Your task to perform on an android device: Open calendar and show me the third week of next month Image 0: 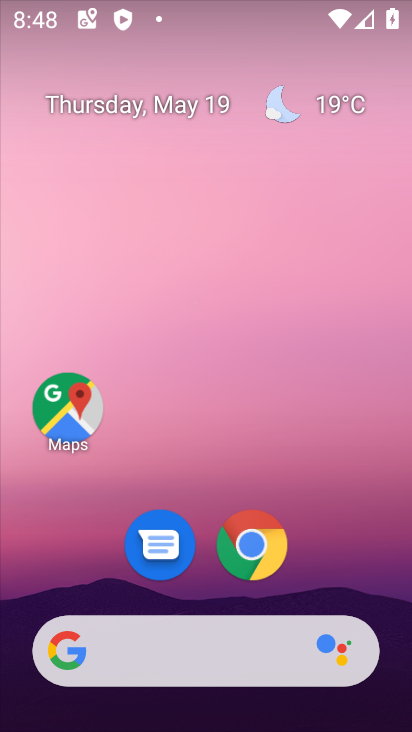
Step 0: drag from (354, 573) to (282, 240)
Your task to perform on an android device: Open calendar and show me the third week of next month Image 1: 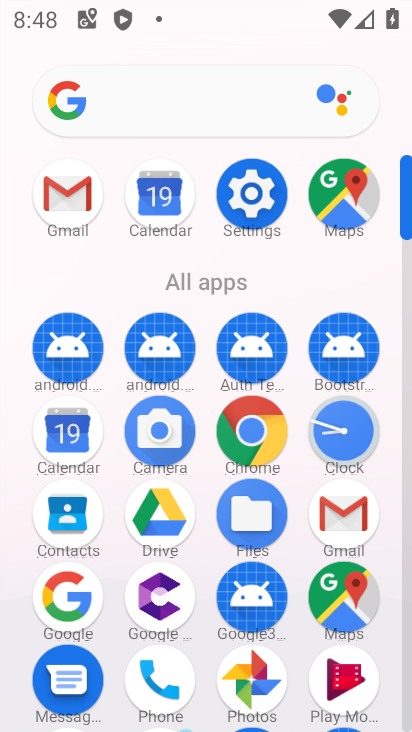
Step 1: click (58, 442)
Your task to perform on an android device: Open calendar and show me the third week of next month Image 2: 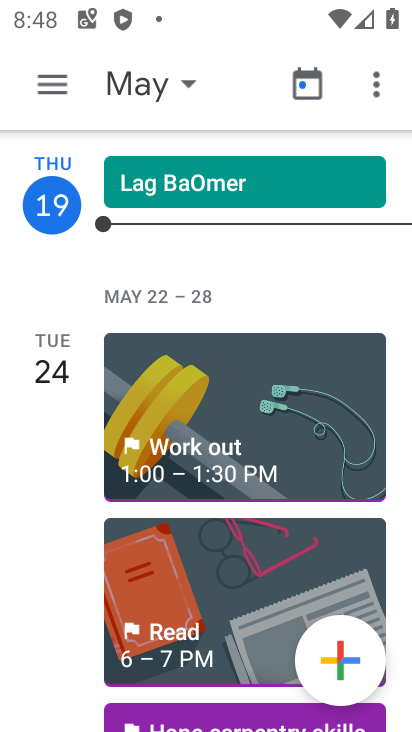
Step 2: click (143, 91)
Your task to perform on an android device: Open calendar and show me the third week of next month Image 3: 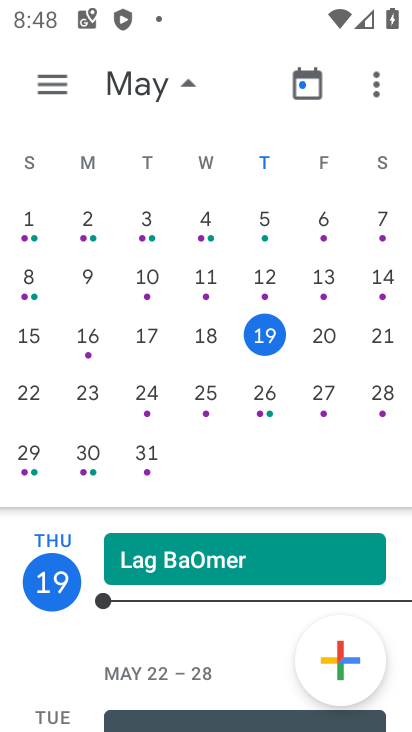
Step 3: drag from (384, 357) to (0, 370)
Your task to perform on an android device: Open calendar and show me the third week of next month Image 4: 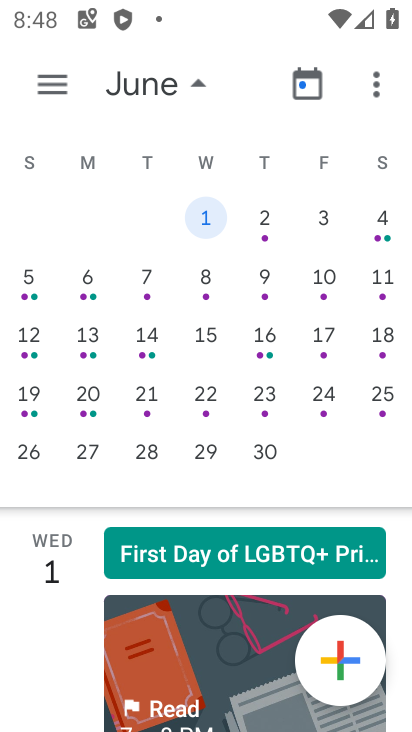
Step 4: click (212, 404)
Your task to perform on an android device: Open calendar and show me the third week of next month Image 5: 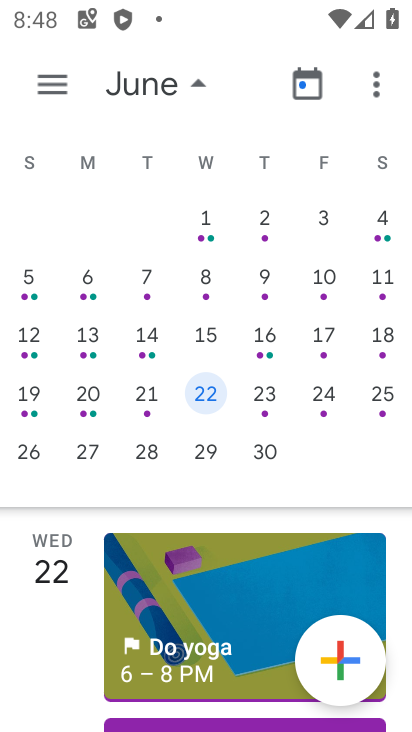
Step 5: task complete